Your task to perform on an android device: uninstall "AliExpress" Image 0: 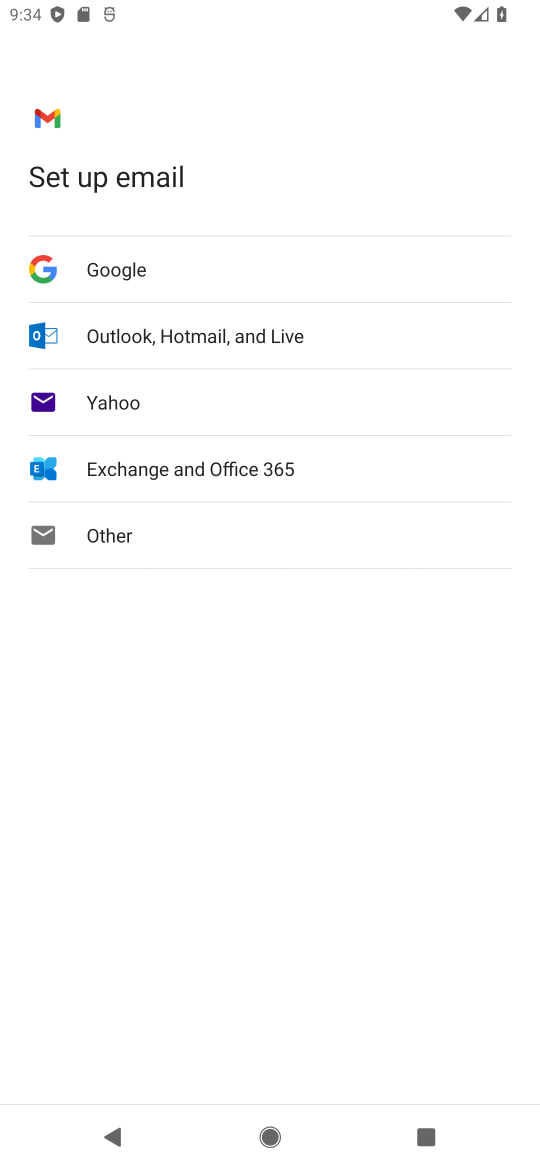
Step 0: press back button
Your task to perform on an android device: uninstall "AliExpress" Image 1: 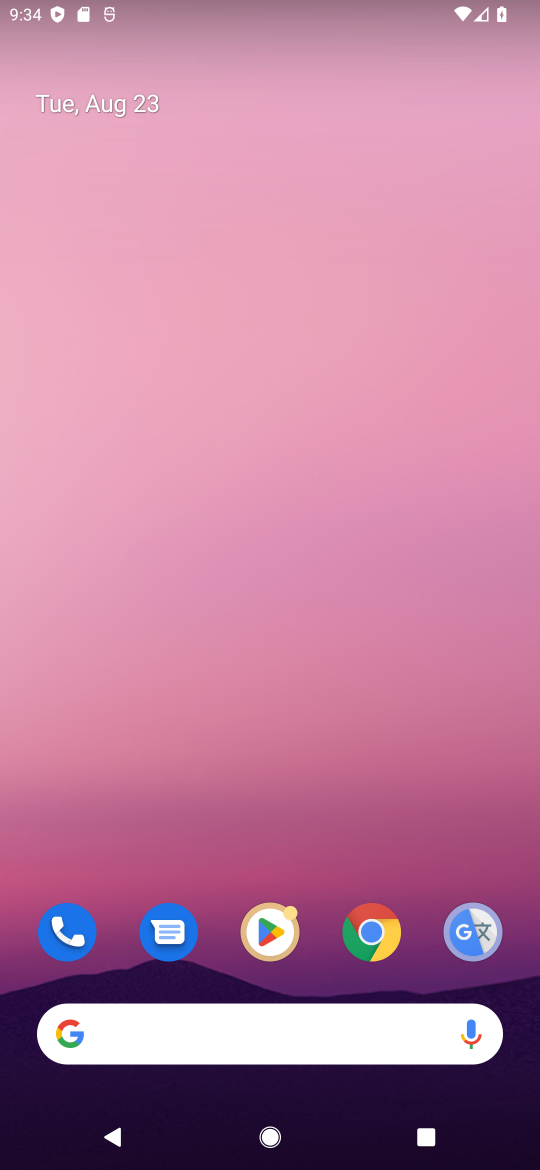
Step 1: click (255, 925)
Your task to perform on an android device: uninstall "AliExpress" Image 2: 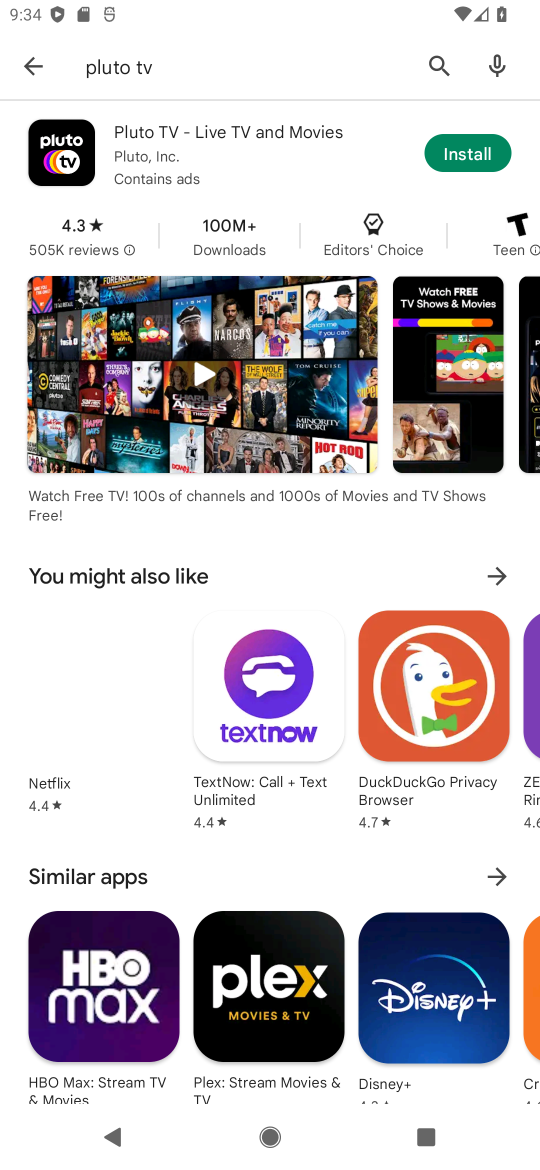
Step 2: click (432, 50)
Your task to perform on an android device: uninstall "AliExpress" Image 3: 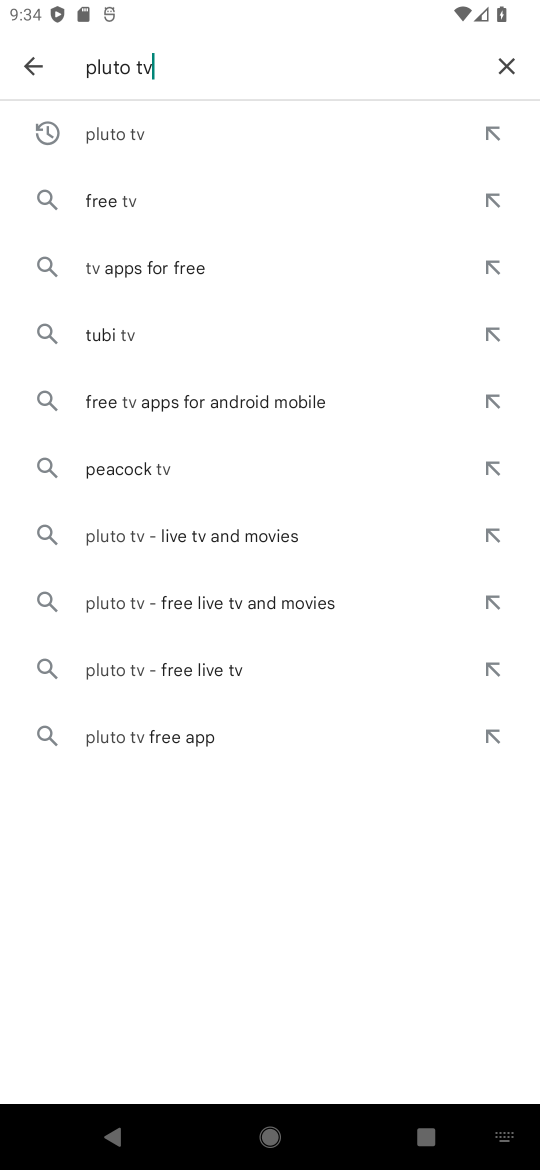
Step 3: click (515, 56)
Your task to perform on an android device: uninstall "AliExpress" Image 4: 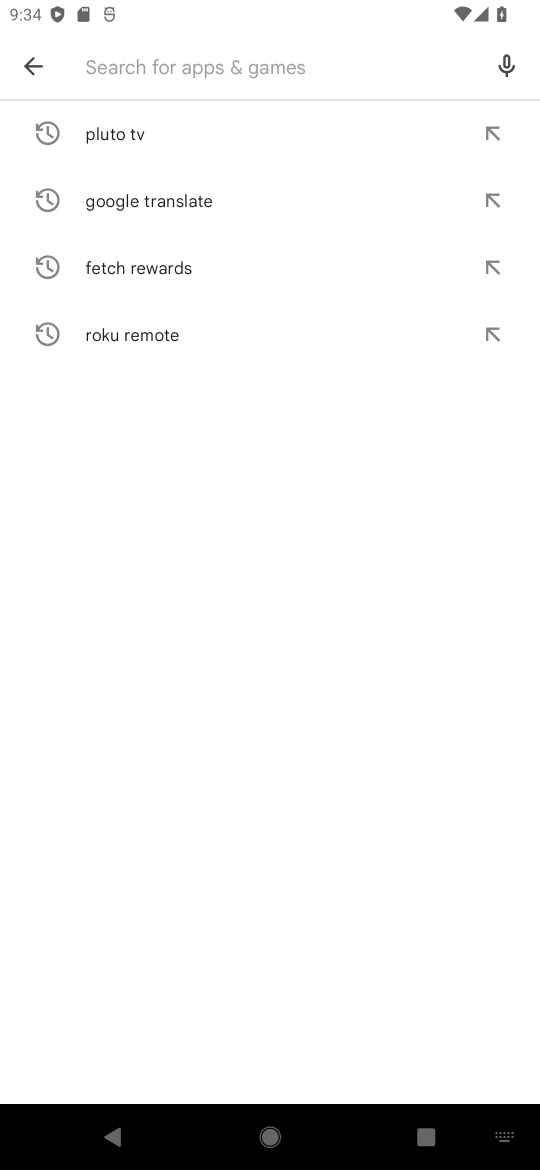
Step 4: type "ali express"
Your task to perform on an android device: uninstall "AliExpress" Image 5: 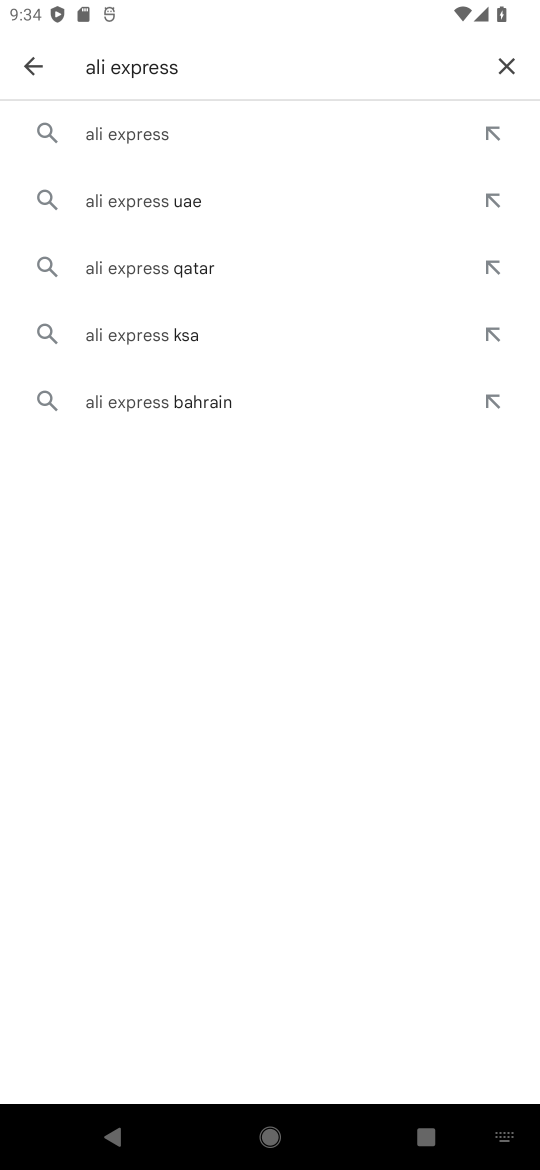
Step 5: click (157, 128)
Your task to perform on an android device: uninstall "AliExpress" Image 6: 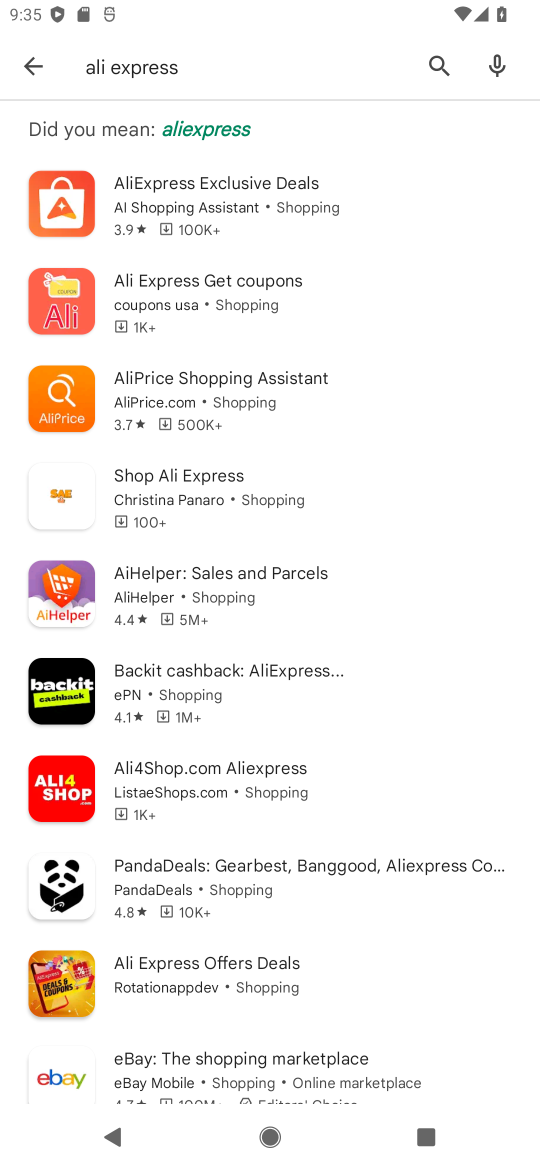
Step 6: click (286, 201)
Your task to perform on an android device: uninstall "AliExpress" Image 7: 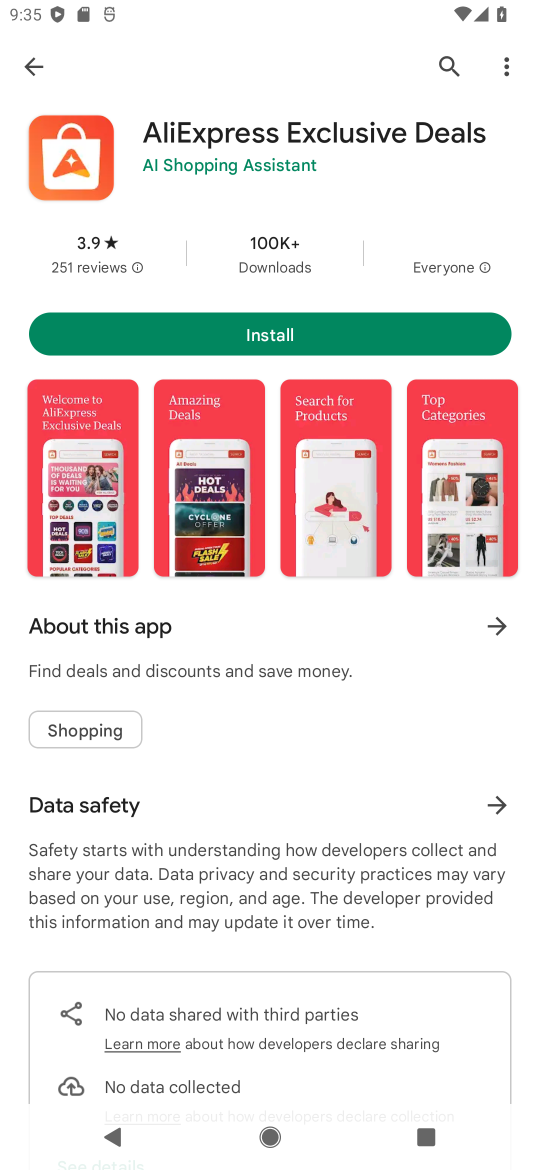
Step 7: task complete